Your task to perform on an android device: check storage Image 0: 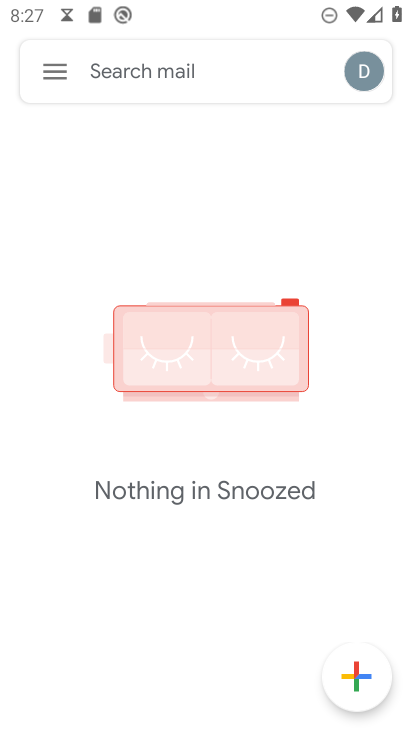
Step 0: press home button
Your task to perform on an android device: check storage Image 1: 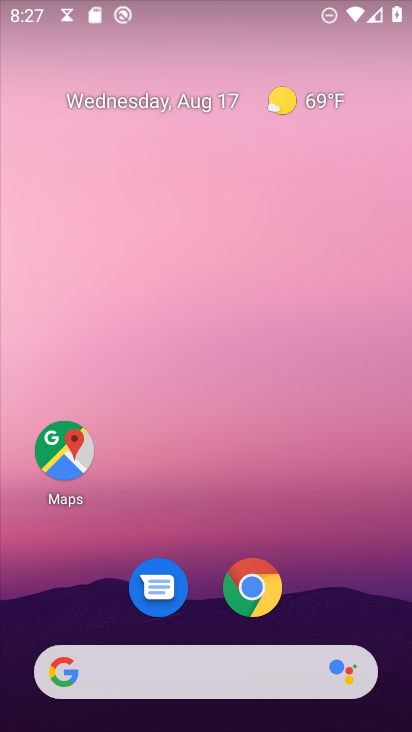
Step 1: drag from (27, 703) to (121, 351)
Your task to perform on an android device: check storage Image 2: 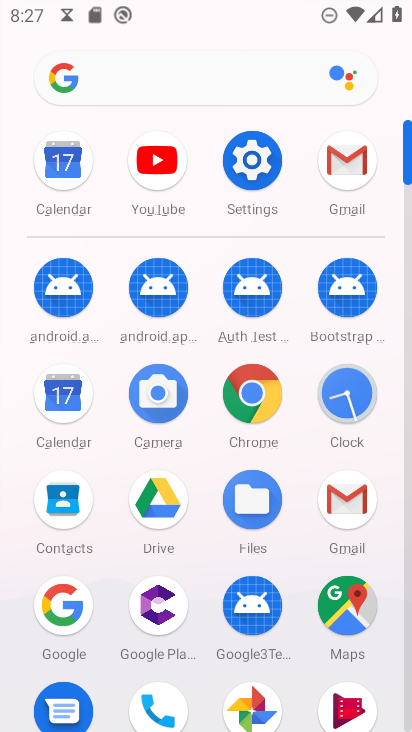
Step 2: click (266, 170)
Your task to perform on an android device: check storage Image 3: 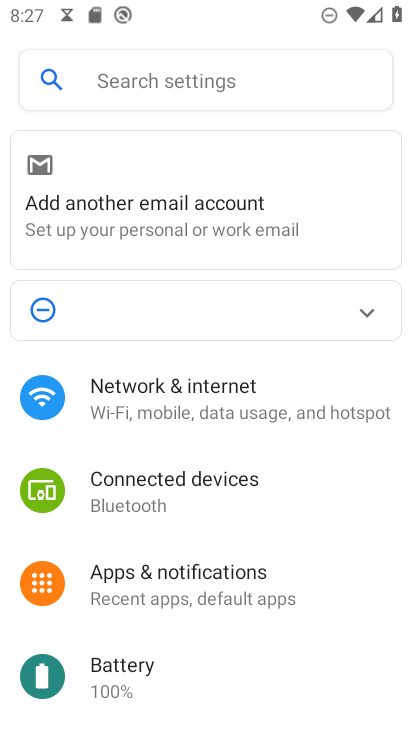
Step 3: drag from (325, 683) to (286, 233)
Your task to perform on an android device: check storage Image 4: 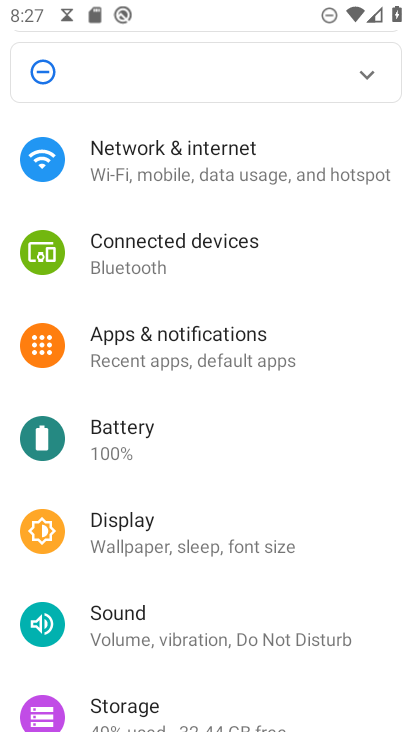
Step 4: click (118, 705)
Your task to perform on an android device: check storage Image 5: 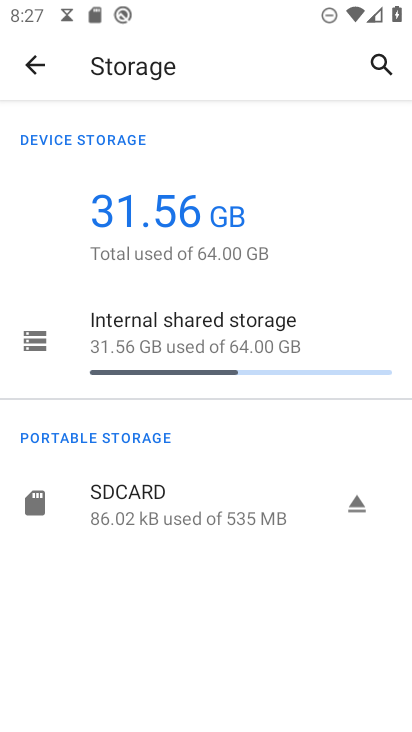
Step 5: task complete